Your task to perform on an android device: snooze an email in the gmail app Image 0: 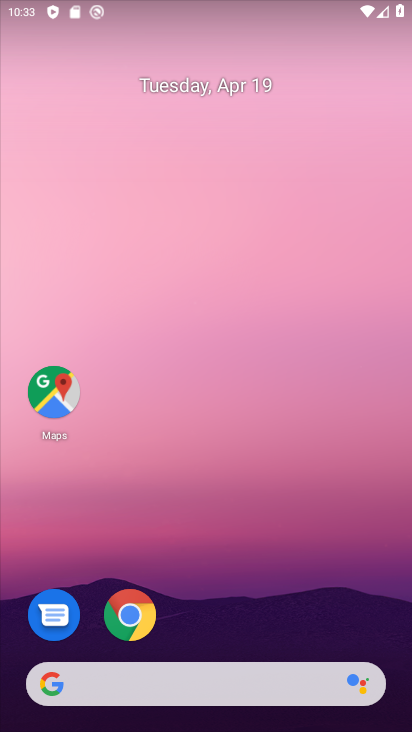
Step 0: drag from (230, 604) to (262, 31)
Your task to perform on an android device: snooze an email in the gmail app Image 1: 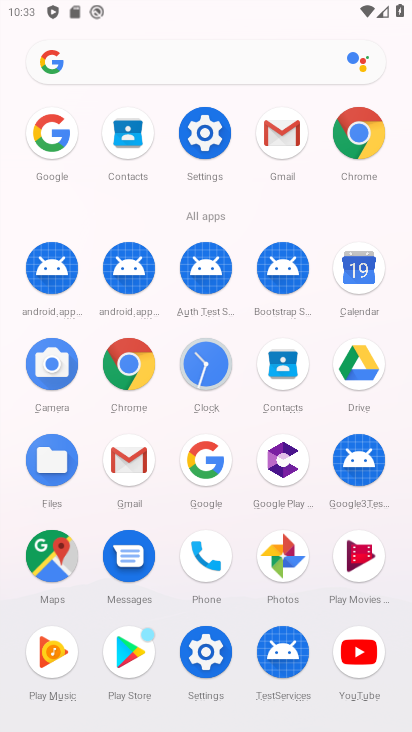
Step 1: click (279, 133)
Your task to perform on an android device: snooze an email in the gmail app Image 2: 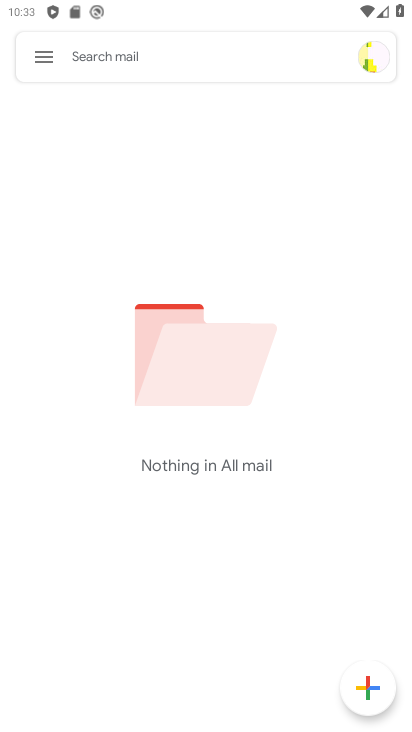
Step 2: click (39, 55)
Your task to perform on an android device: snooze an email in the gmail app Image 3: 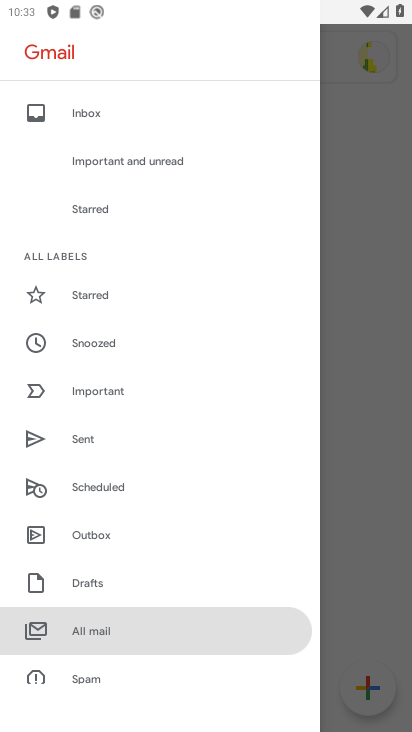
Step 3: click (97, 628)
Your task to perform on an android device: snooze an email in the gmail app Image 4: 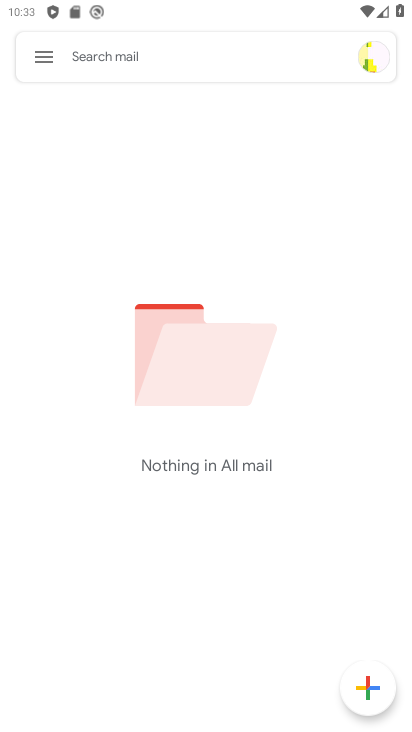
Step 4: task complete